Your task to perform on an android device: Is it going to rain tomorrow? Image 0: 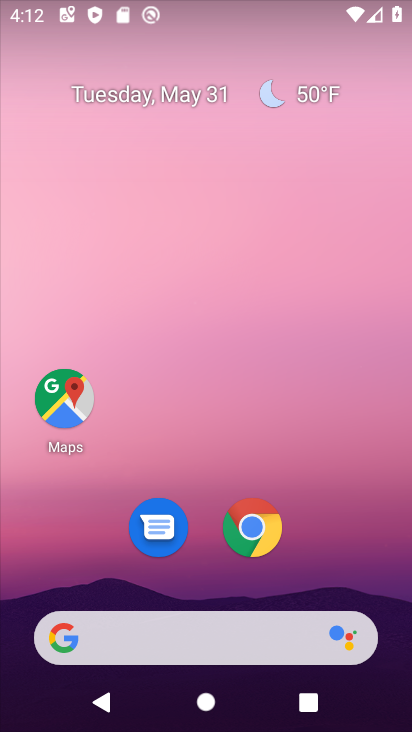
Step 0: click (172, 639)
Your task to perform on an android device: Is it going to rain tomorrow? Image 1: 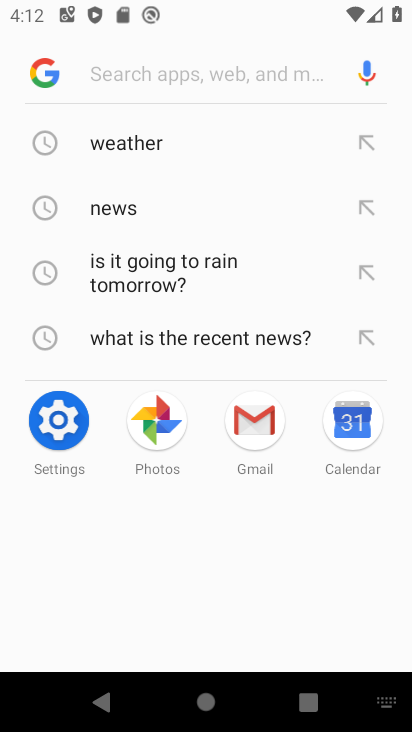
Step 1: click (204, 268)
Your task to perform on an android device: Is it going to rain tomorrow? Image 2: 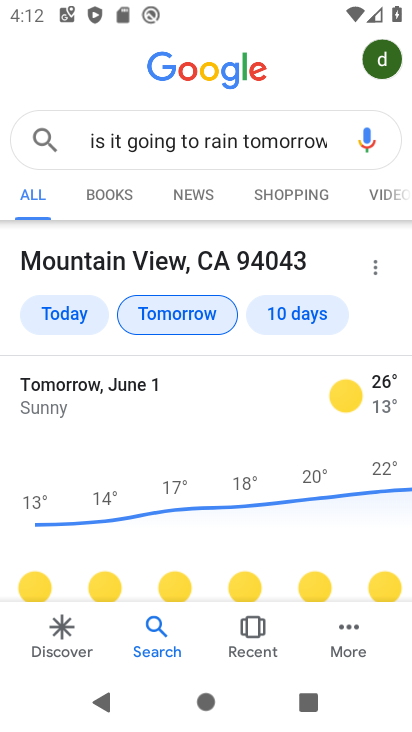
Step 2: task complete